Your task to perform on an android device: Show me the alarms in the clock app Image 0: 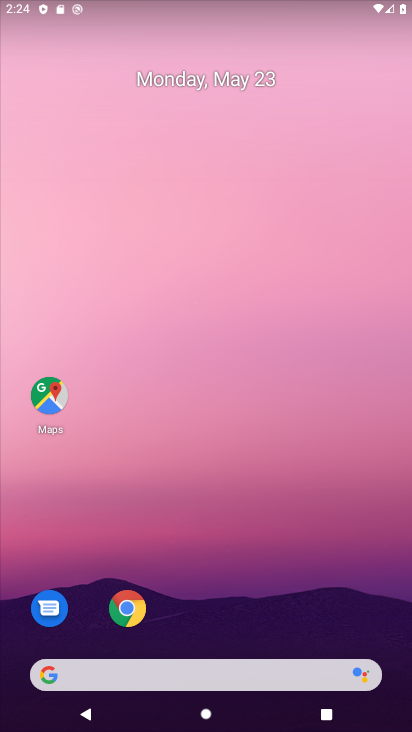
Step 0: drag from (272, 625) to (306, 289)
Your task to perform on an android device: Show me the alarms in the clock app Image 1: 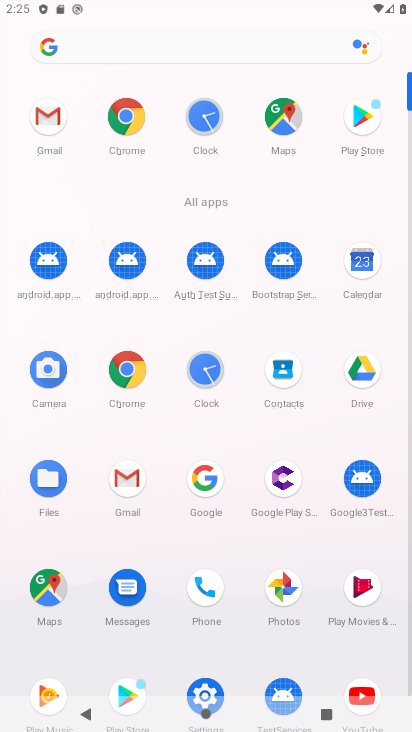
Step 1: click (213, 365)
Your task to perform on an android device: Show me the alarms in the clock app Image 2: 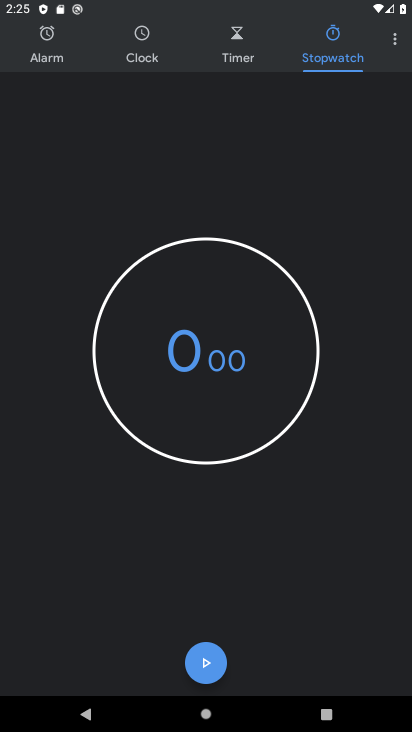
Step 2: click (45, 57)
Your task to perform on an android device: Show me the alarms in the clock app Image 3: 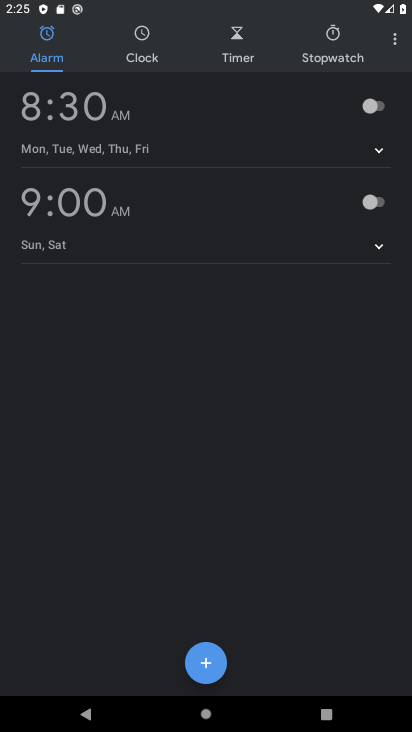
Step 3: task complete